Your task to perform on an android device: turn on priority inbox in the gmail app Image 0: 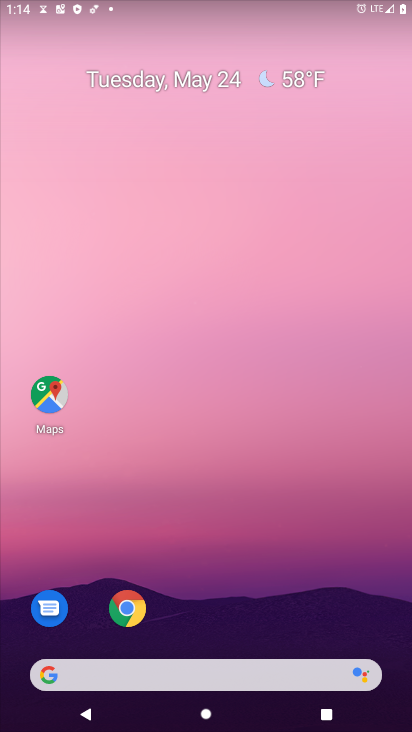
Step 0: press home button
Your task to perform on an android device: turn on priority inbox in the gmail app Image 1: 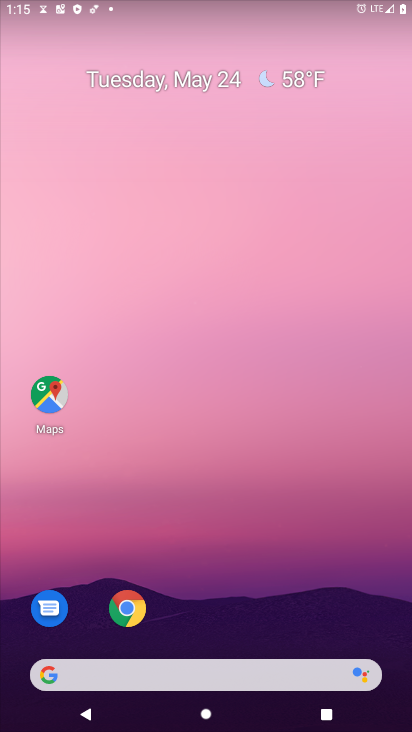
Step 1: drag from (268, 703) to (307, 200)
Your task to perform on an android device: turn on priority inbox in the gmail app Image 2: 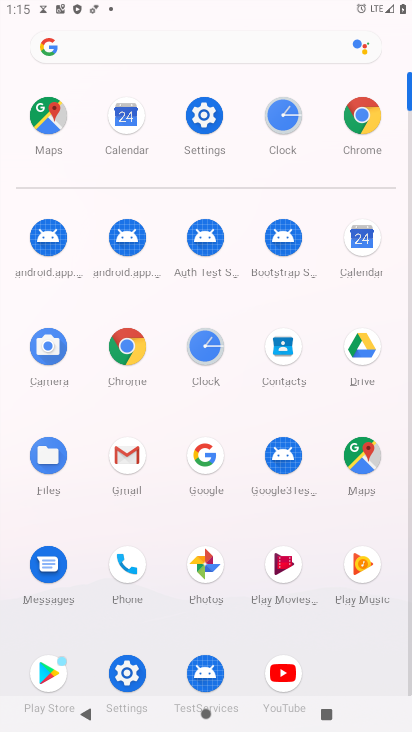
Step 2: click (143, 471)
Your task to perform on an android device: turn on priority inbox in the gmail app Image 3: 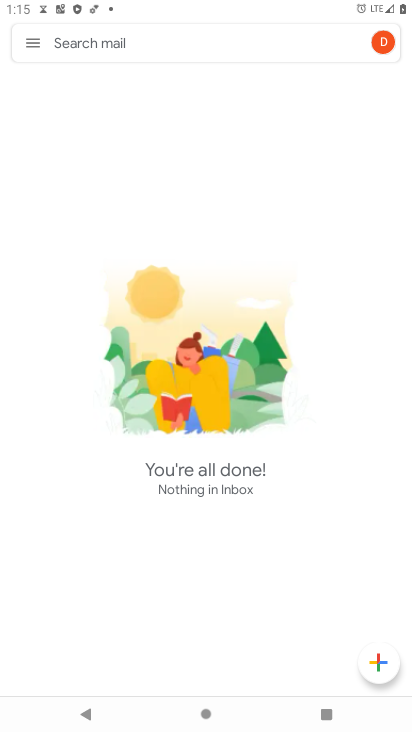
Step 3: click (43, 37)
Your task to perform on an android device: turn on priority inbox in the gmail app Image 4: 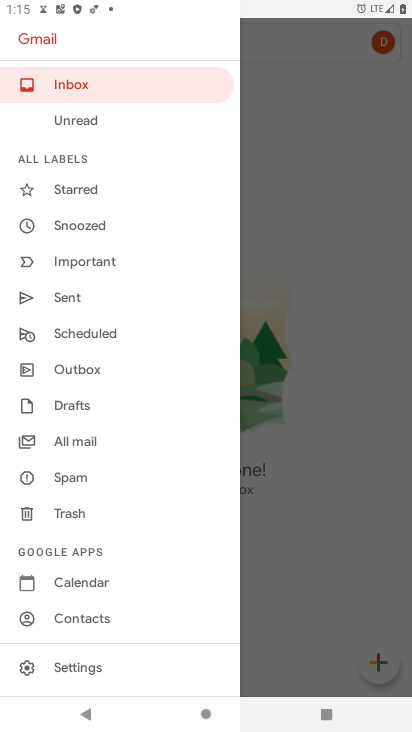
Step 4: click (67, 667)
Your task to perform on an android device: turn on priority inbox in the gmail app Image 5: 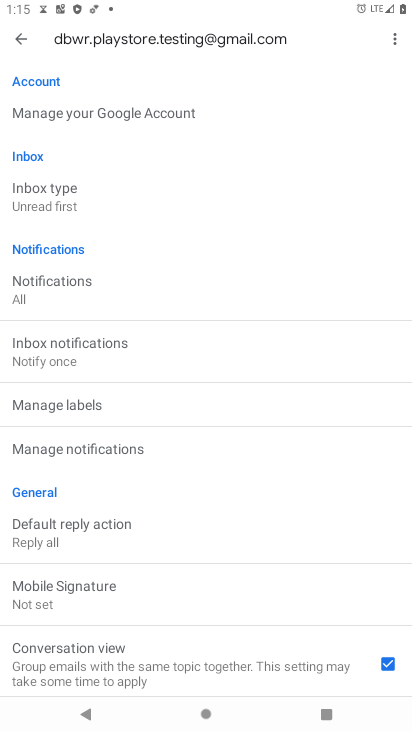
Step 5: click (94, 195)
Your task to perform on an android device: turn on priority inbox in the gmail app Image 6: 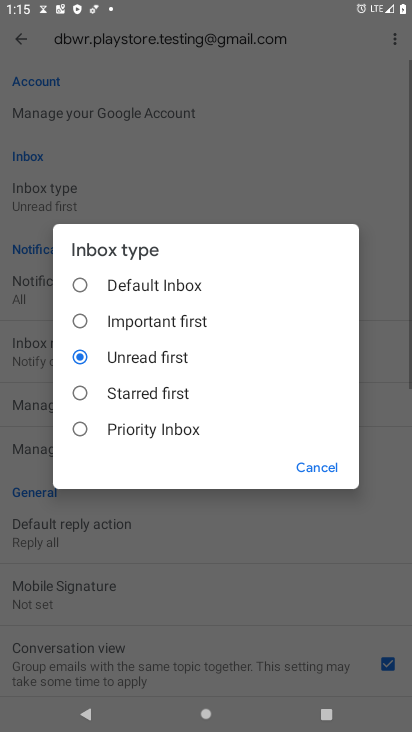
Step 6: click (166, 426)
Your task to perform on an android device: turn on priority inbox in the gmail app Image 7: 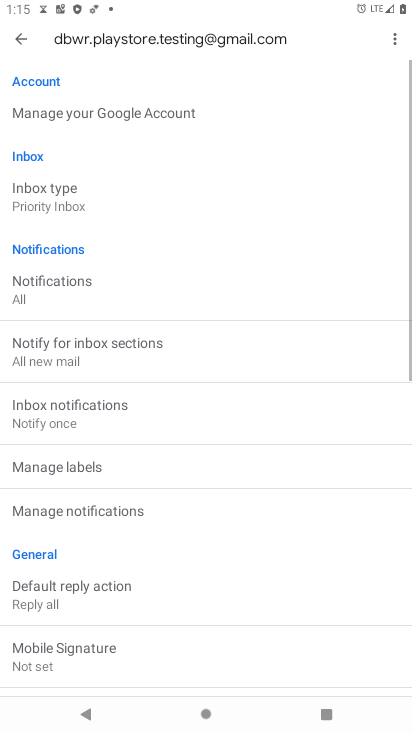
Step 7: task complete